Your task to perform on an android device: Toggle the flashlight Image 0: 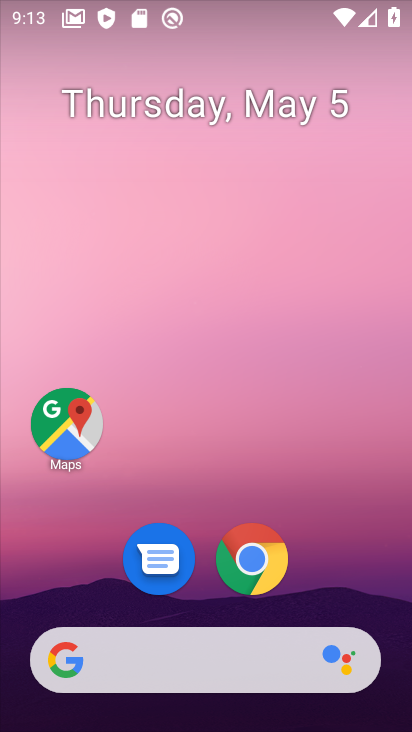
Step 0: drag from (62, 580) to (286, 288)
Your task to perform on an android device: Toggle the flashlight Image 1: 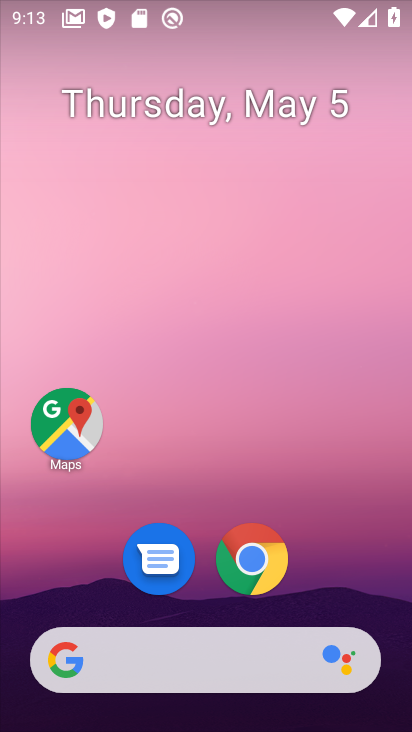
Step 1: drag from (9, 698) to (316, 223)
Your task to perform on an android device: Toggle the flashlight Image 2: 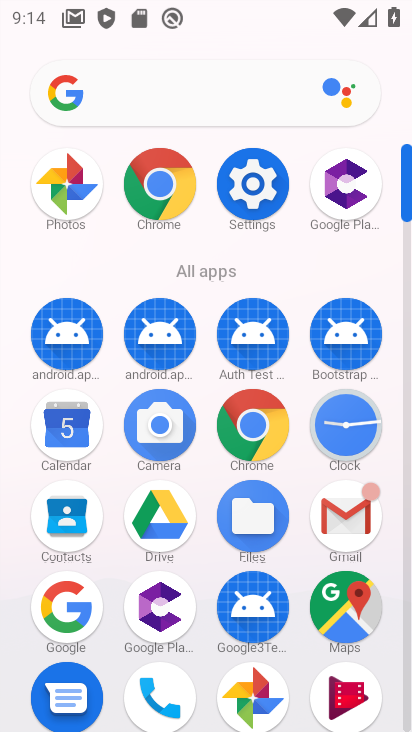
Step 2: click (243, 173)
Your task to perform on an android device: Toggle the flashlight Image 3: 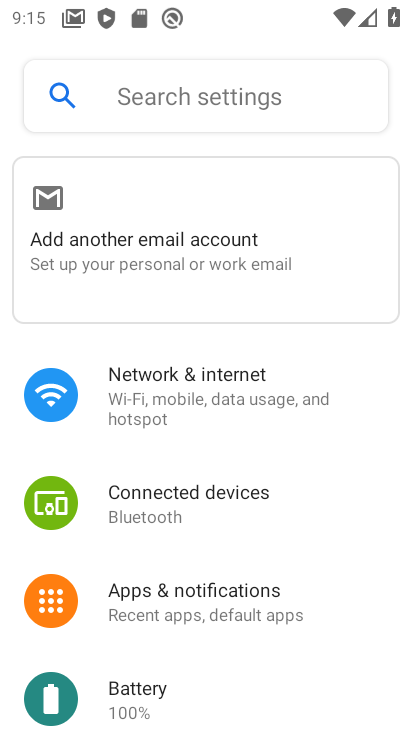
Step 3: task complete